Your task to perform on an android device: Go to Reddit.com Image 0: 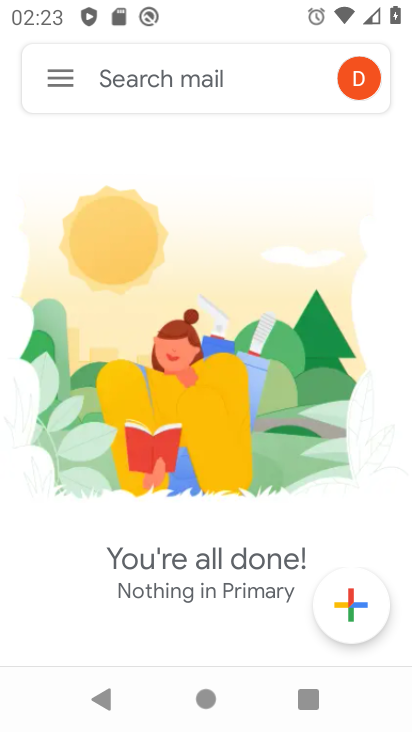
Step 0: press home button
Your task to perform on an android device: Go to Reddit.com Image 1: 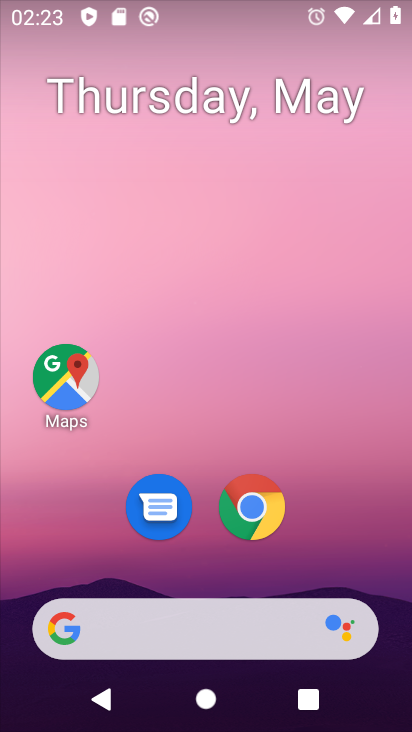
Step 1: drag from (313, 562) to (313, 177)
Your task to perform on an android device: Go to Reddit.com Image 2: 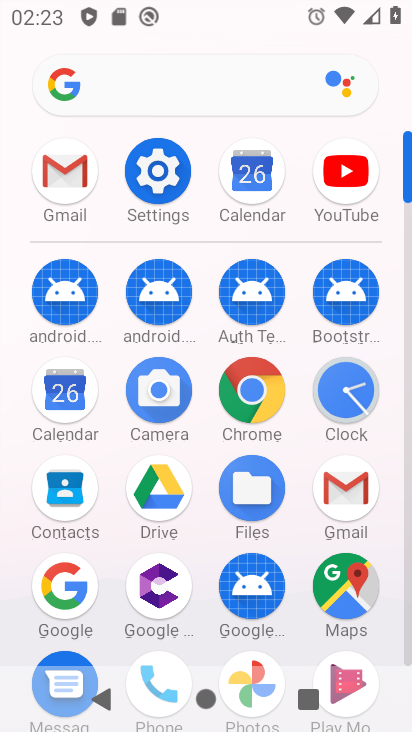
Step 2: click (218, 104)
Your task to perform on an android device: Go to Reddit.com Image 3: 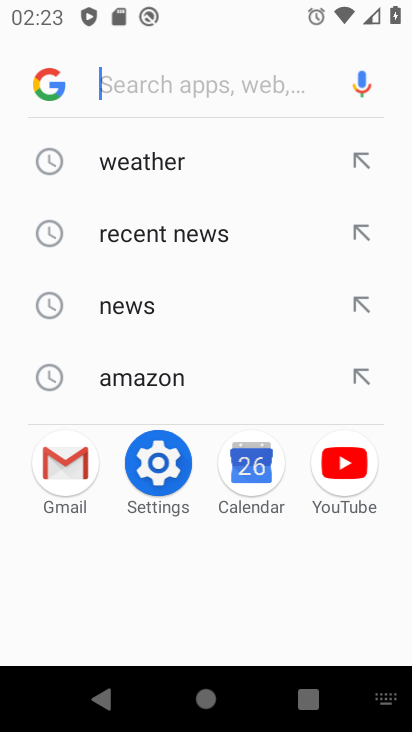
Step 3: type "reddiyt"
Your task to perform on an android device: Go to Reddit.com Image 4: 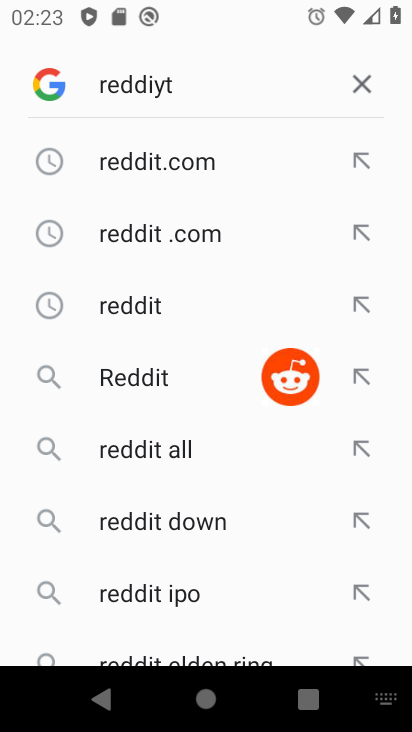
Step 4: click (187, 157)
Your task to perform on an android device: Go to Reddit.com Image 5: 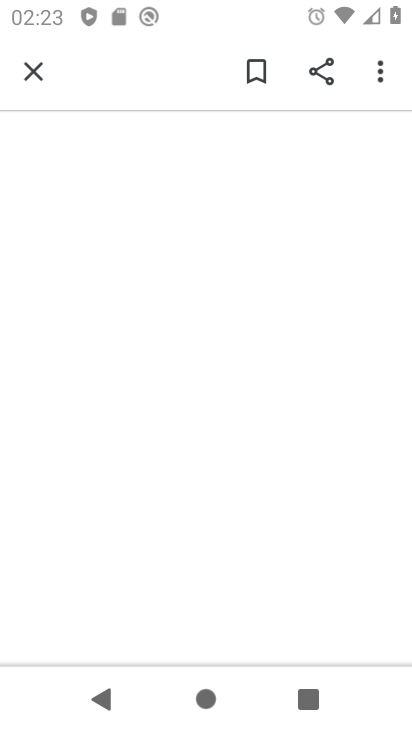
Step 5: task complete